Your task to perform on an android device: Open the phone app and click the voicemail tab. Image 0: 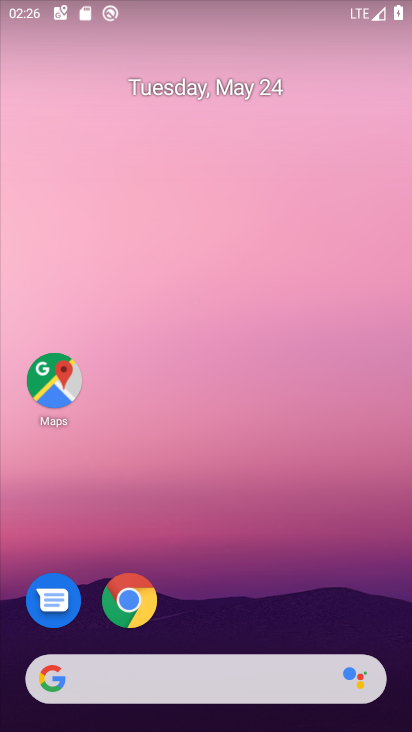
Step 0: drag from (242, 598) to (240, 190)
Your task to perform on an android device: Open the phone app and click the voicemail tab. Image 1: 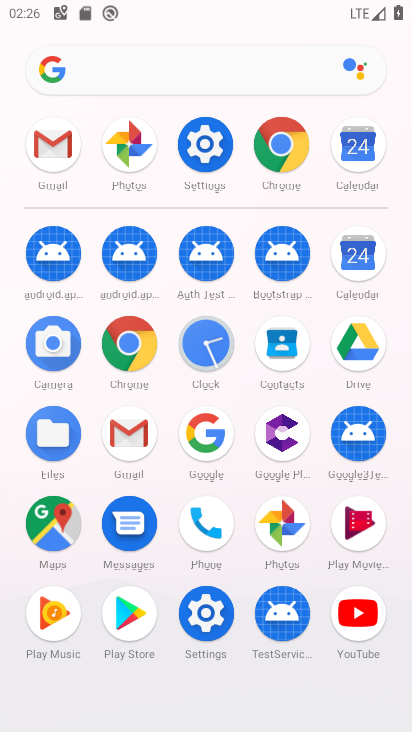
Step 1: click (220, 536)
Your task to perform on an android device: Open the phone app and click the voicemail tab. Image 2: 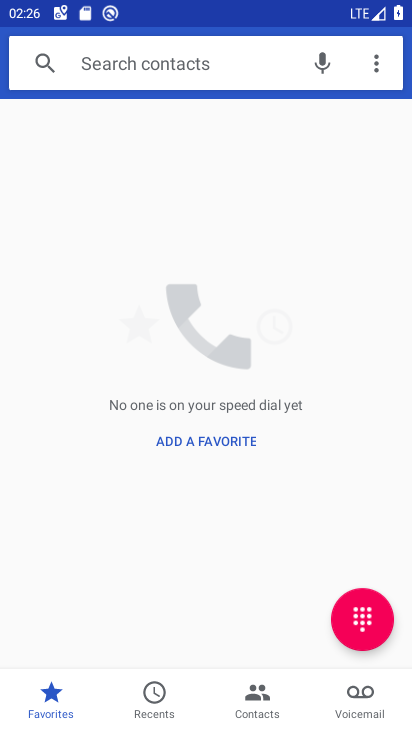
Step 2: click (372, 704)
Your task to perform on an android device: Open the phone app and click the voicemail tab. Image 3: 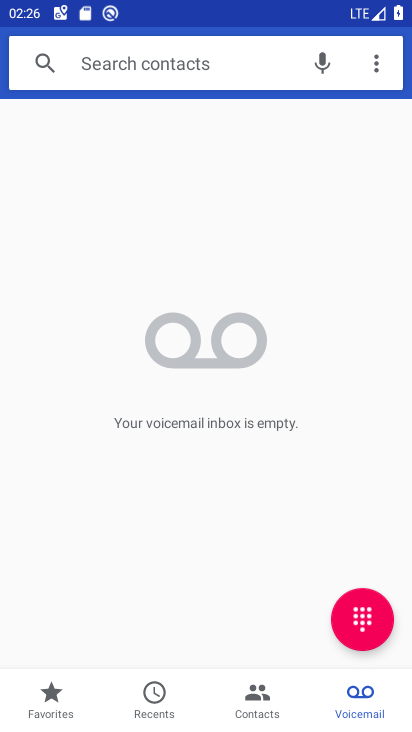
Step 3: task complete